Your task to perform on an android device: clear all cookies in the chrome app Image 0: 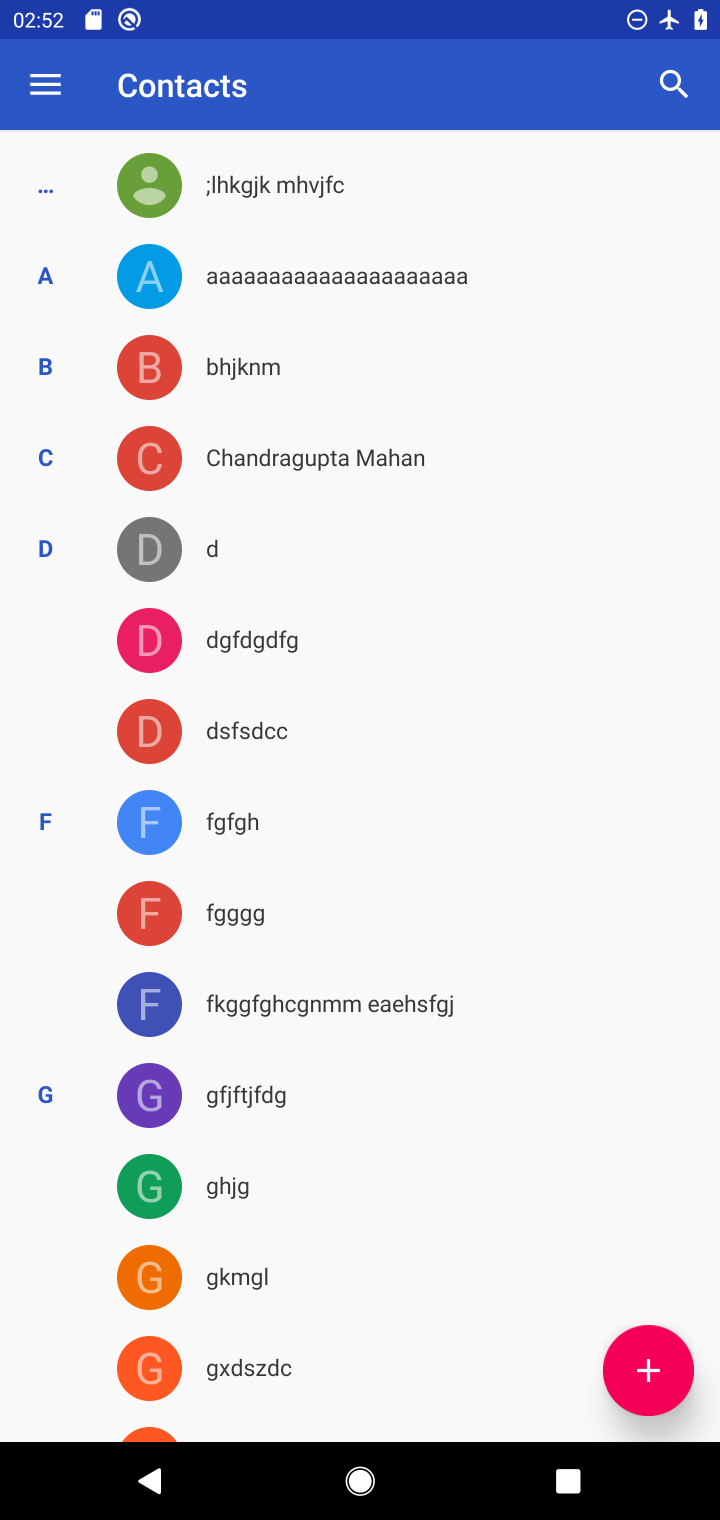
Step 0: press home button
Your task to perform on an android device: clear all cookies in the chrome app Image 1: 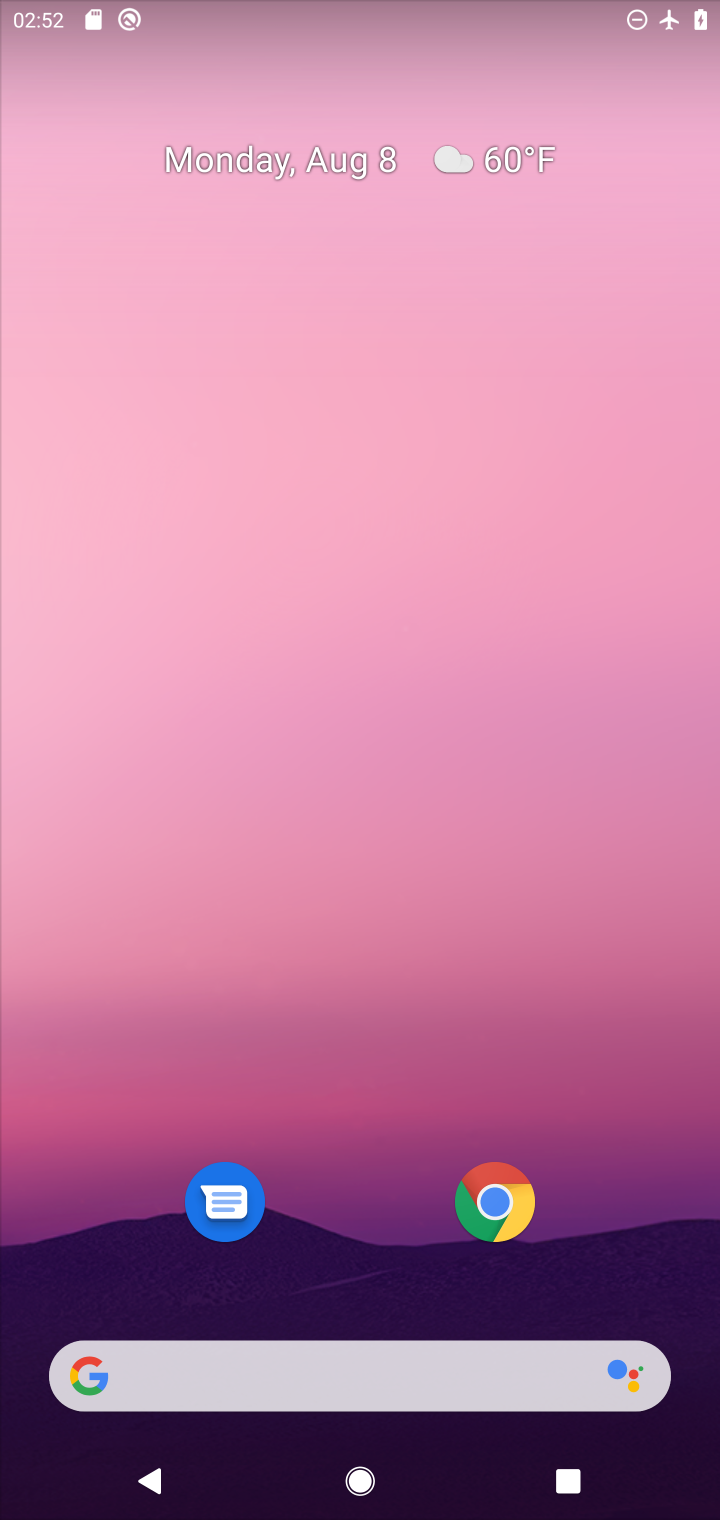
Step 1: drag from (600, 1267) to (596, 235)
Your task to perform on an android device: clear all cookies in the chrome app Image 2: 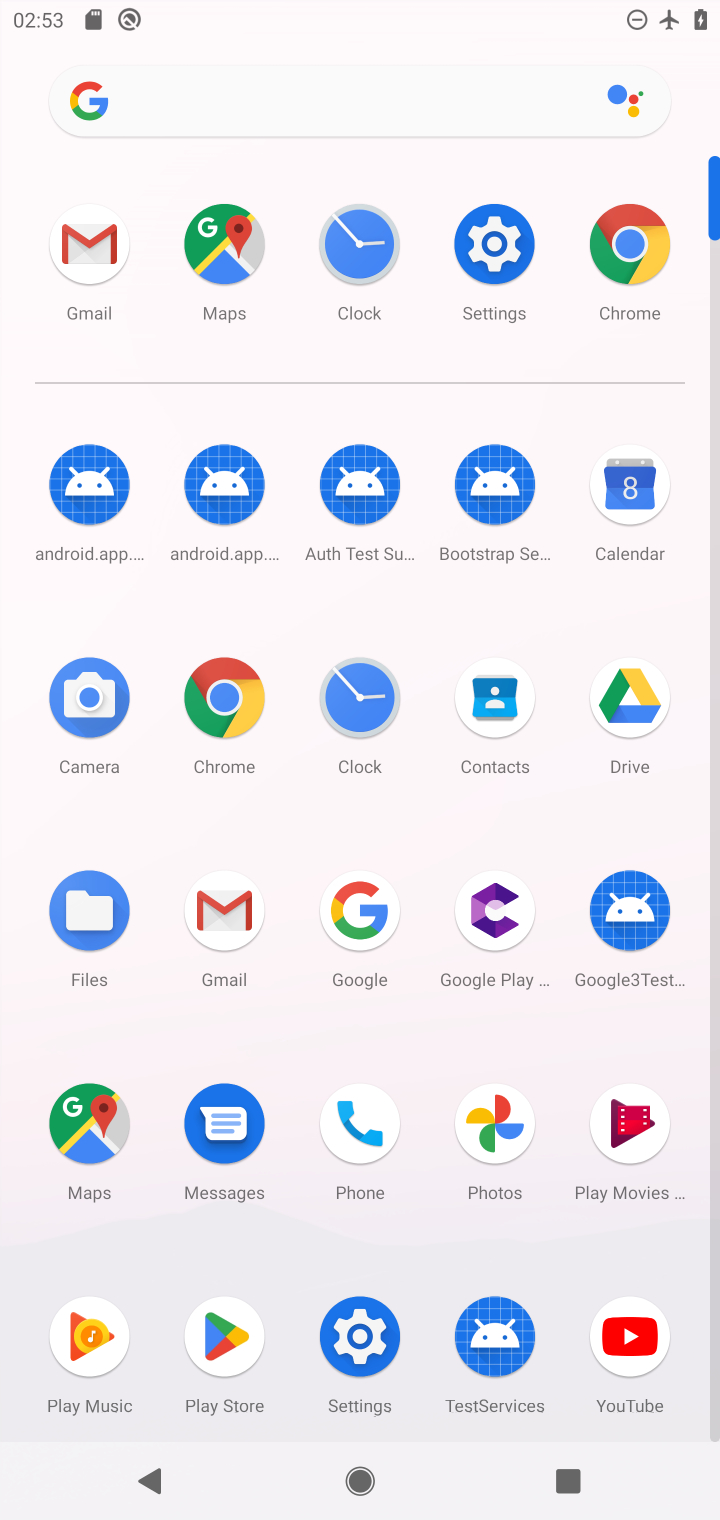
Step 2: click (217, 688)
Your task to perform on an android device: clear all cookies in the chrome app Image 3: 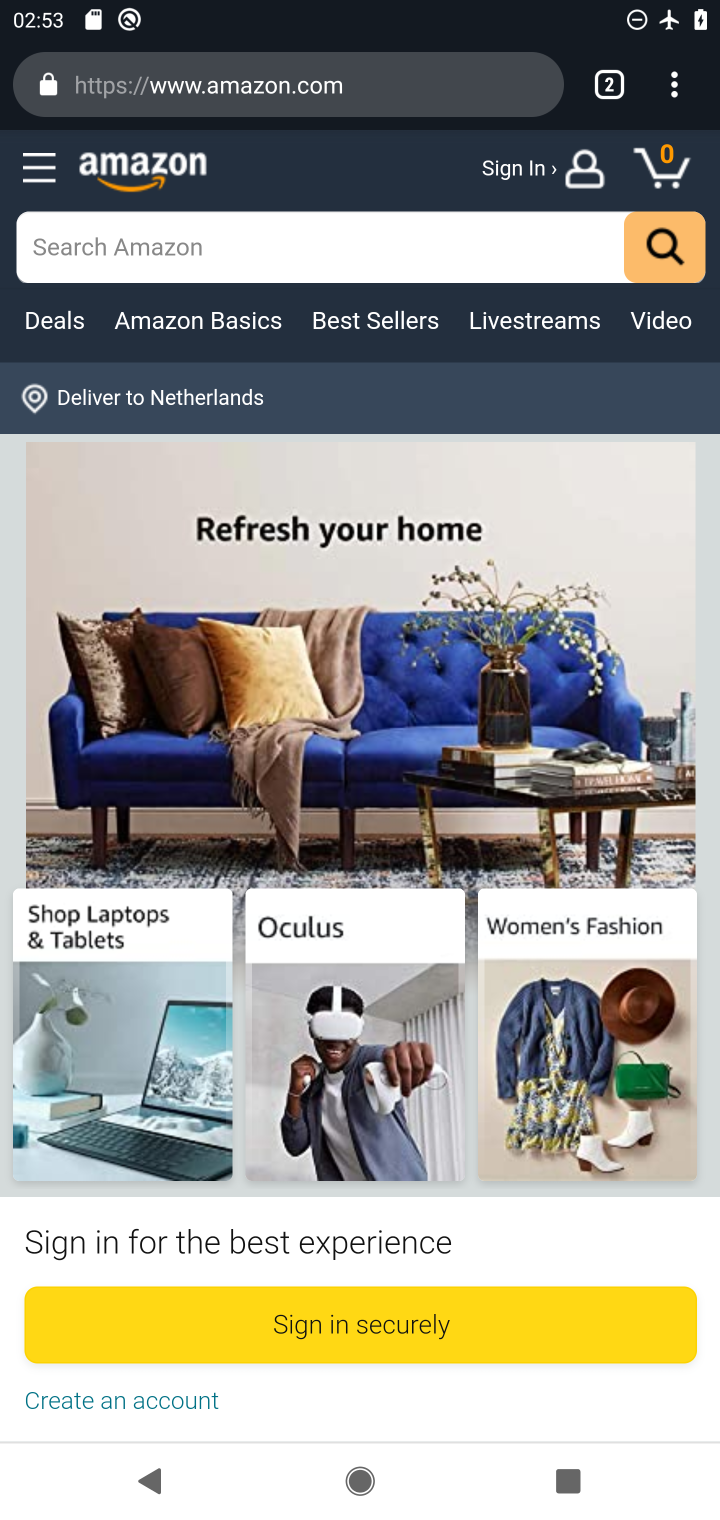
Step 3: click (672, 97)
Your task to perform on an android device: clear all cookies in the chrome app Image 4: 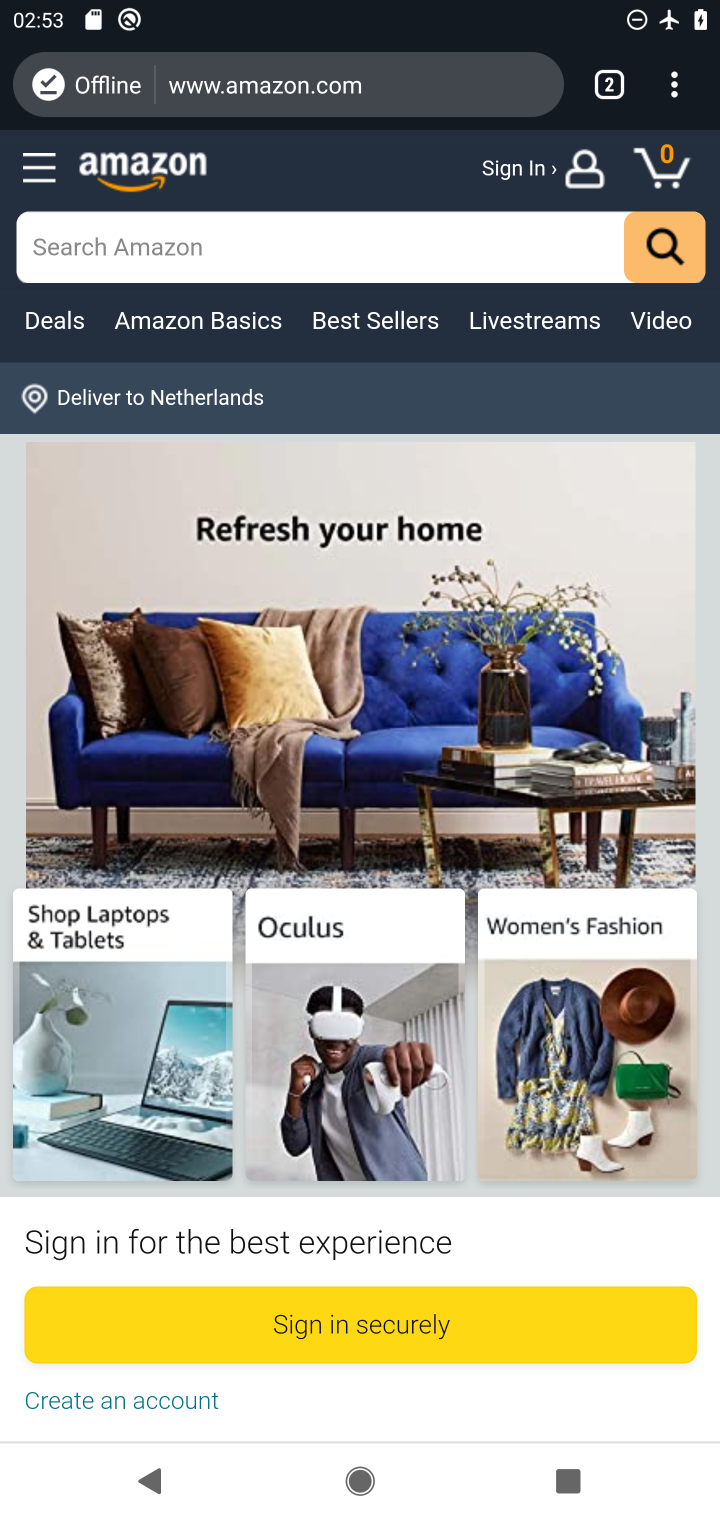
Step 4: click (666, 80)
Your task to perform on an android device: clear all cookies in the chrome app Image 5: 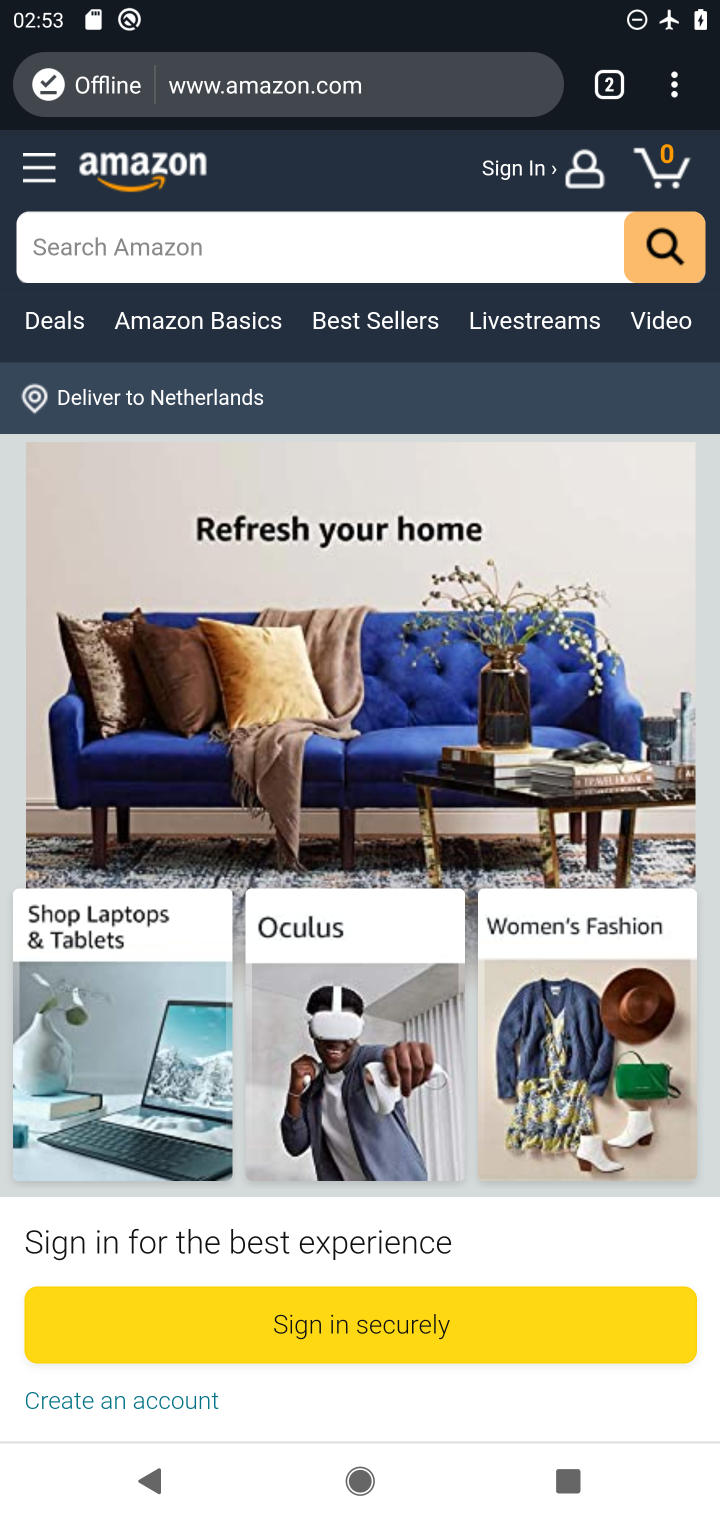
Step 5: click (669, 87)
Your task to perform on an android device: clear all cookies in the chrome app Image 6: 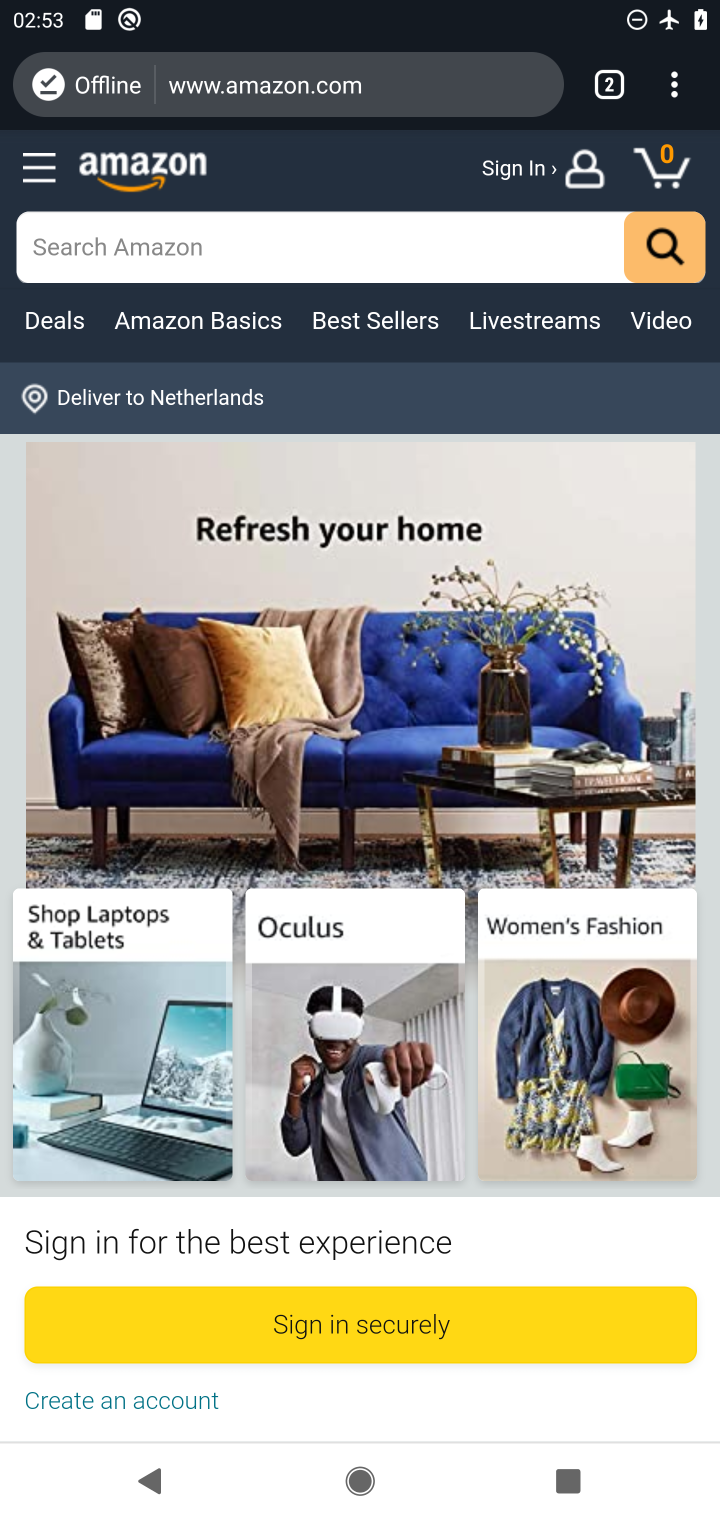
Step 6: click (677, 82)
Your task to perform on an android device: clear all cookies in the chrome app Image 7: 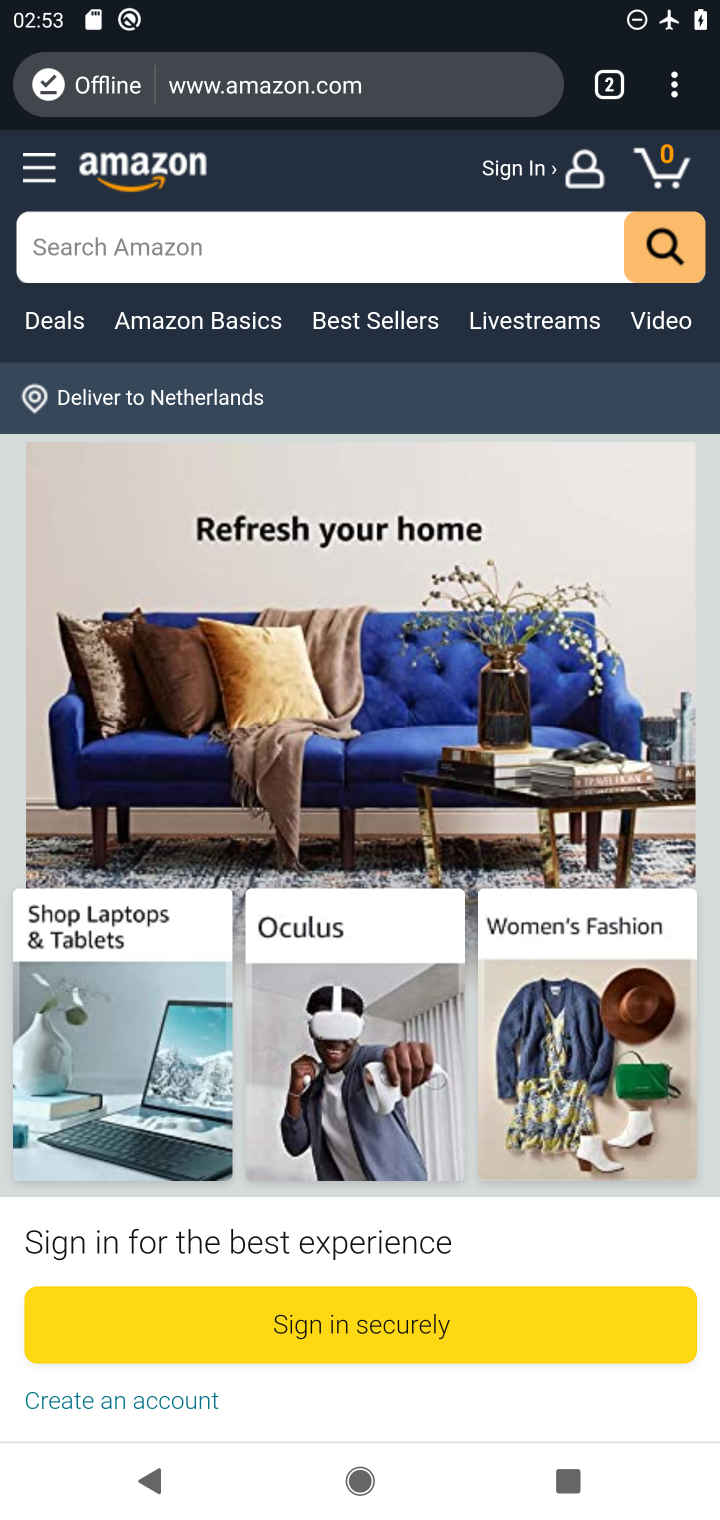
Step 7: click (670, 94)
Your task to perform on an android device: clear all cookies in the chrome app Image 8: 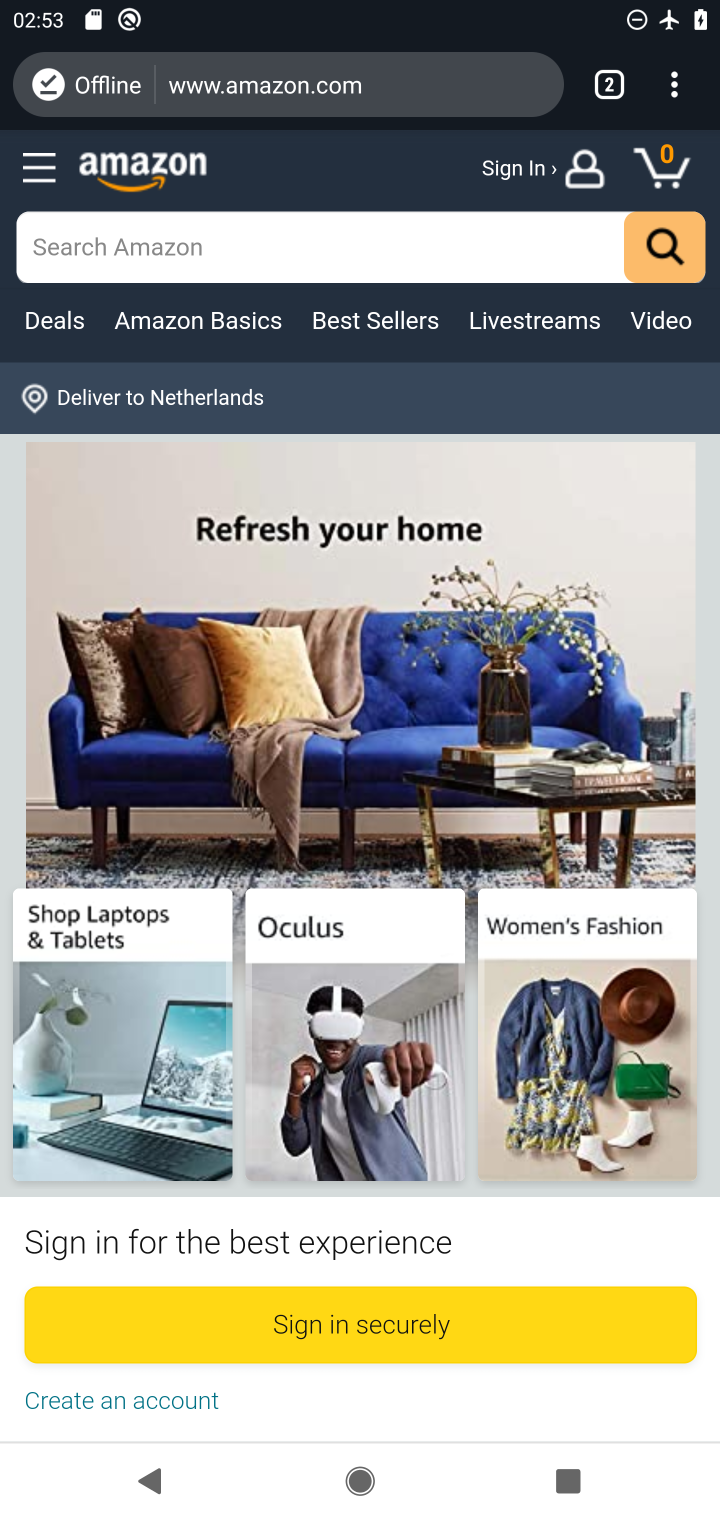
Step 8: click (676, 94)
Your task to perform on an android device: clear all cookies in the chrome app Image 9: 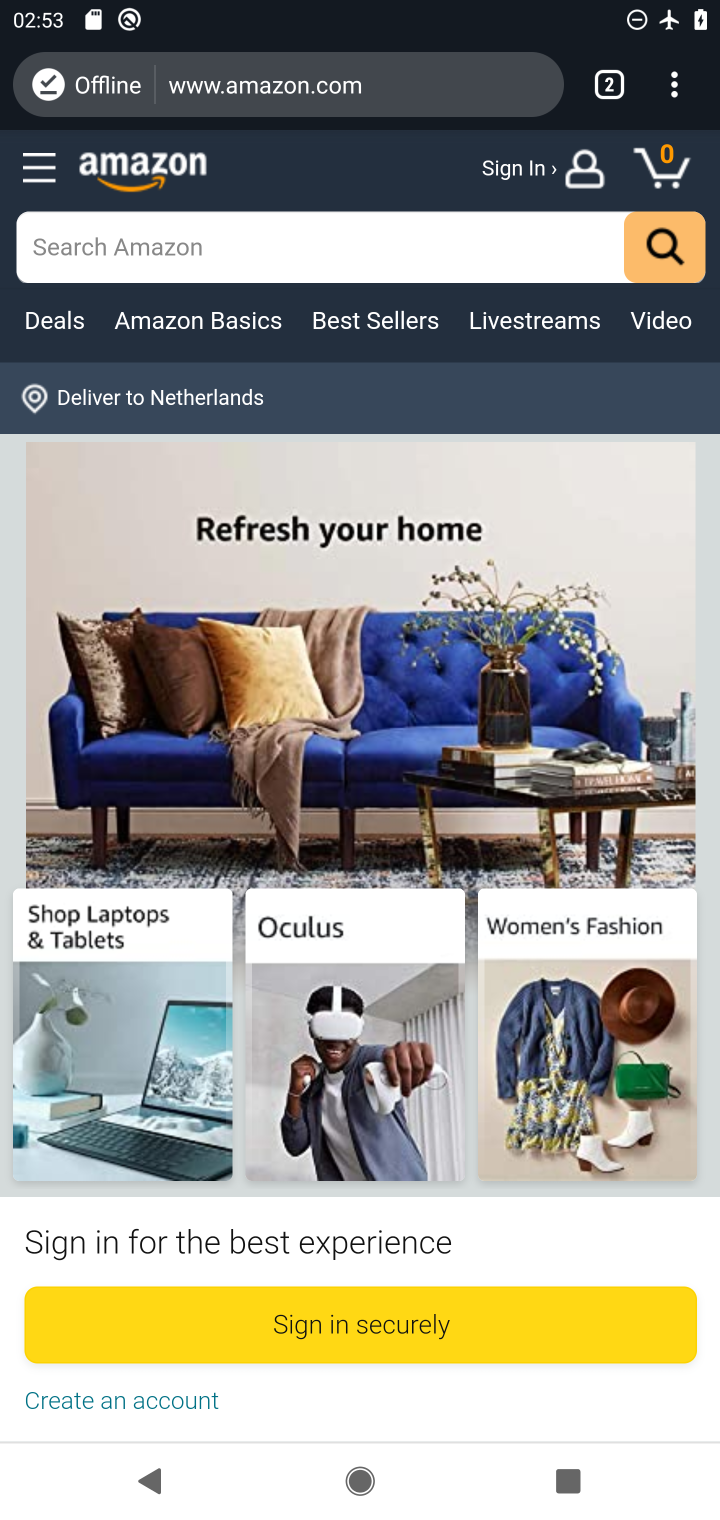
Step 9: task complete